Your task to perform on an android device: change your default location settings in chrome Image 0: 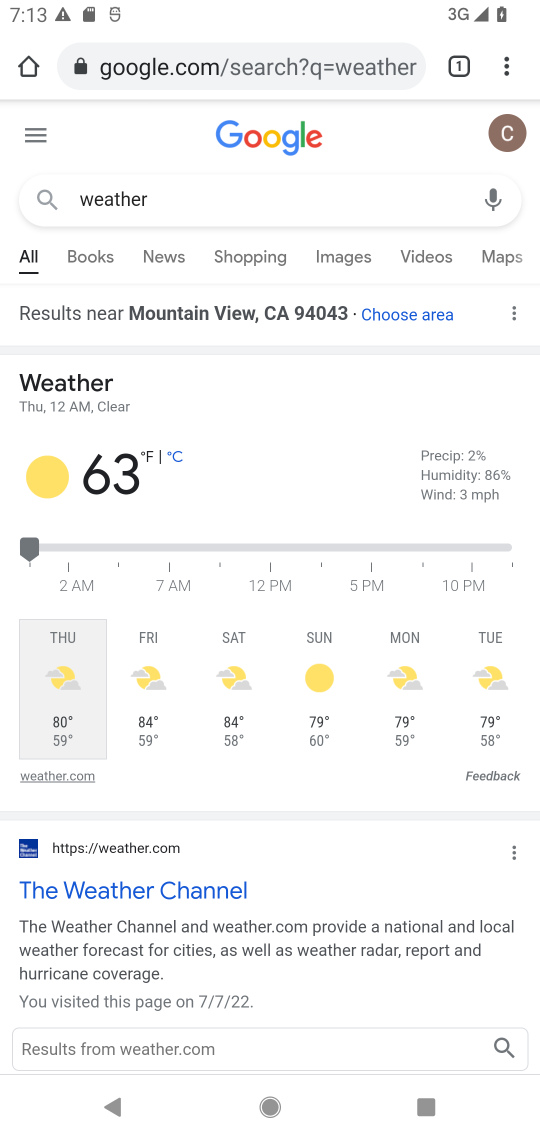
Step 0: click (504, 59)
Your task to perform on an android device: change your default location settings in chrome Image 1: 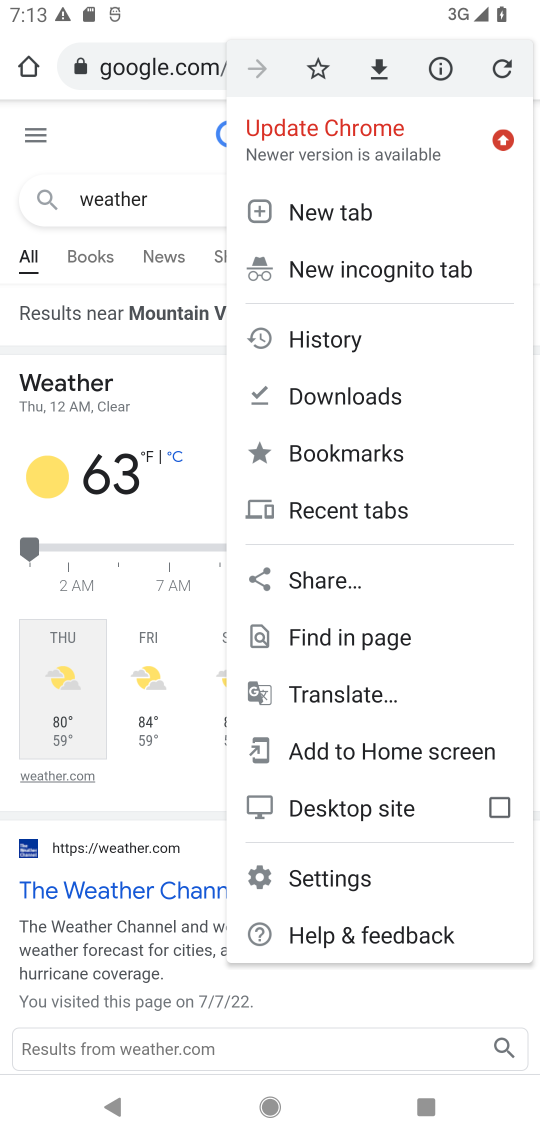
Step 1: click (320, 878)
Your task to perform on an android device: change your default location settings in chrome Image 2: 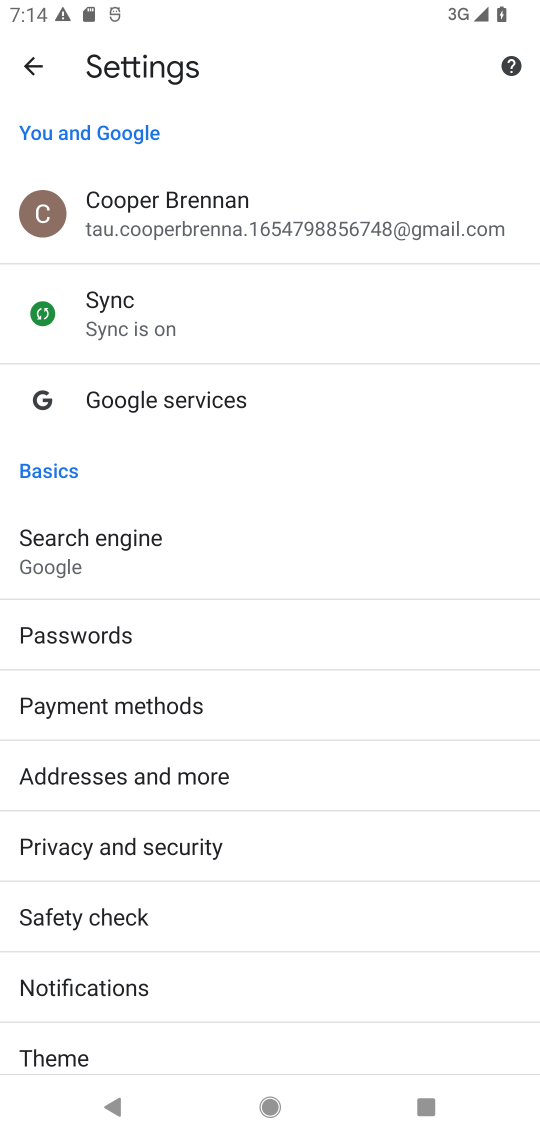
Step 2: drag from (275, 992) to (348, 401)
Your task to perform on an android device: change your default location settings in chrome Image 3: 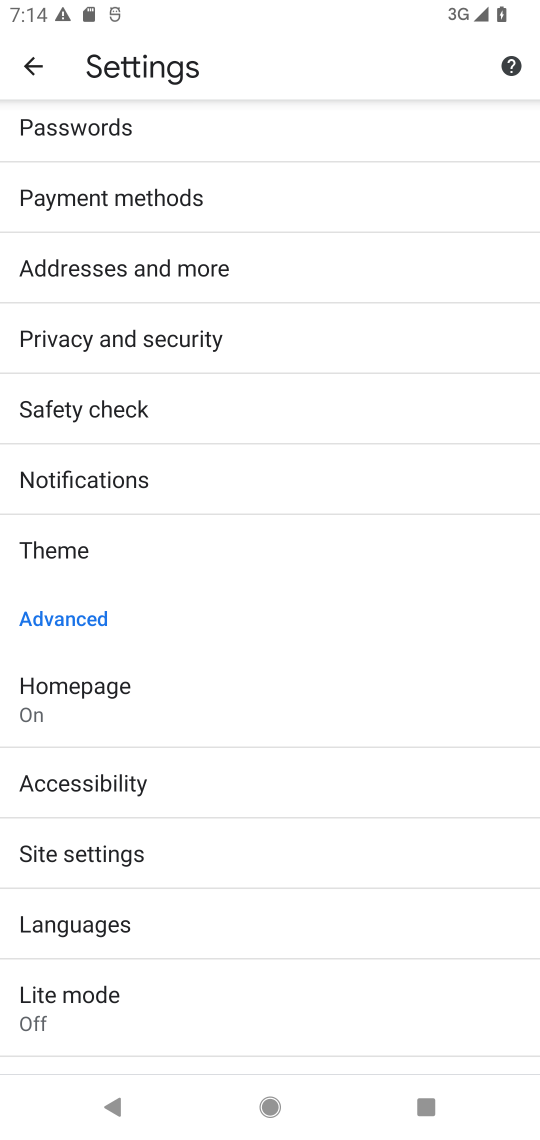
Step 3: click (103, 860)
Your task to perform on an android device: change your default location settings in chrome Image 4: 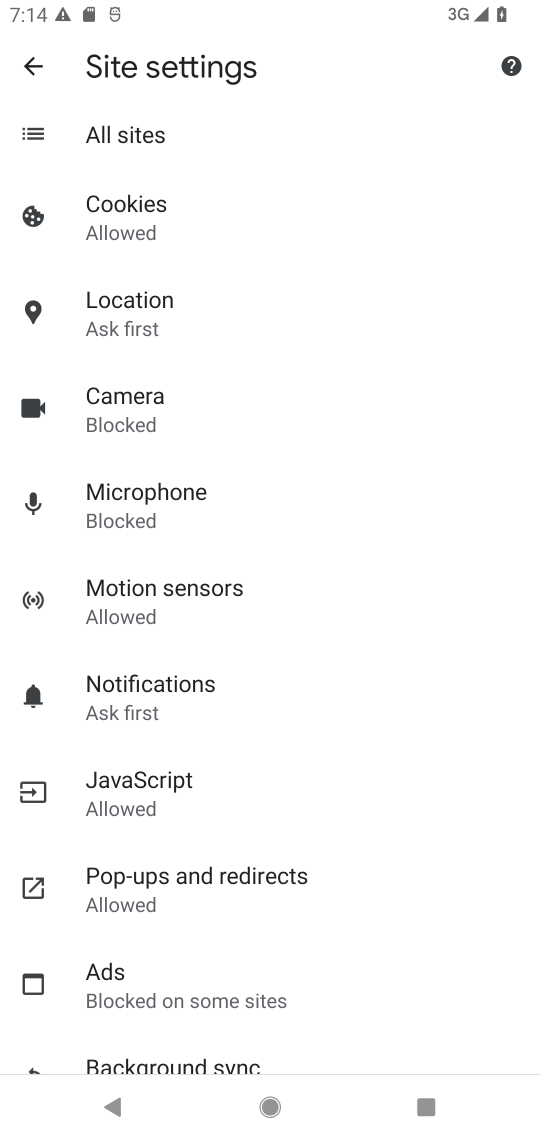
Step 4: click (171, 332)
Your task to perform on an android device: change your default location settings in chrome Image 5: 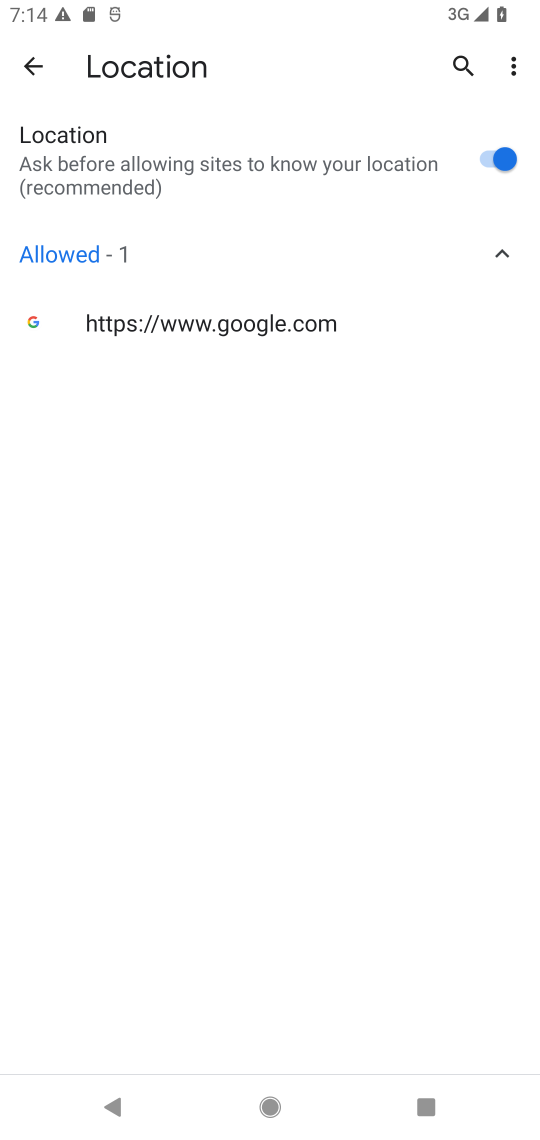
Step 5: task complete